Your task to perform on an android device: What's the latest tech news? Image 0: 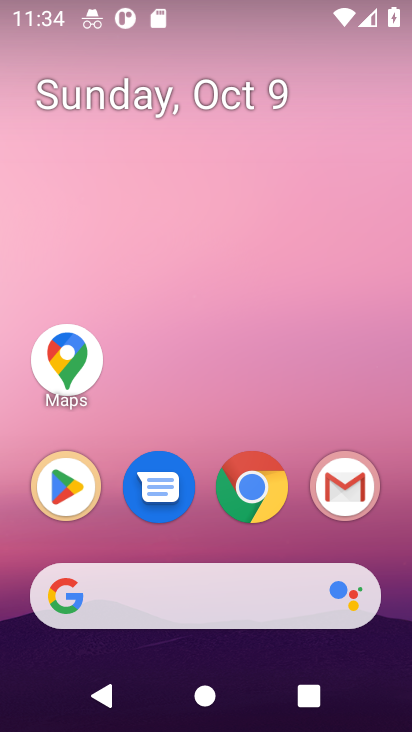
Step 0: click (257, 486)
Your task to perform on an android device: What's the latest tech news? Image 1: 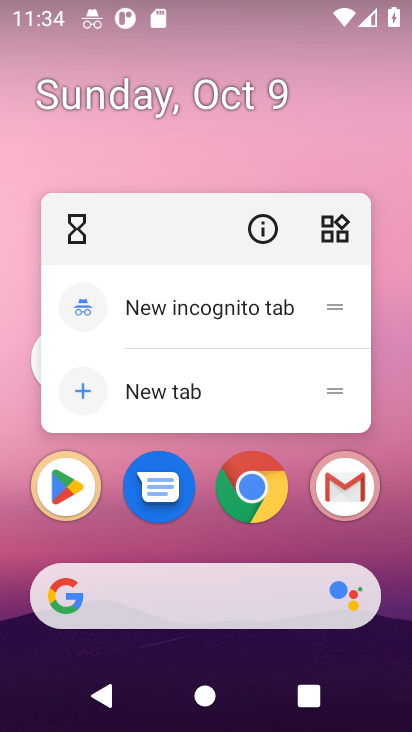
Step 1: click (254, 497)
Your task to perform on an android device: What's the latest tech news? Image 2: 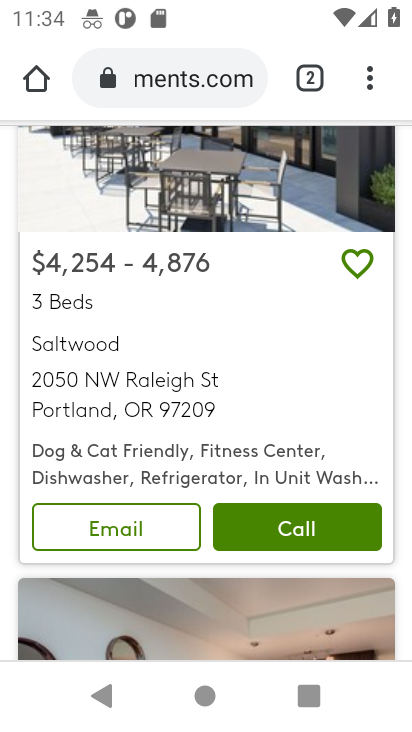
Step 2: click (227, 78)
Your task to perform on an android device: What's the latest tech news? Image 3: 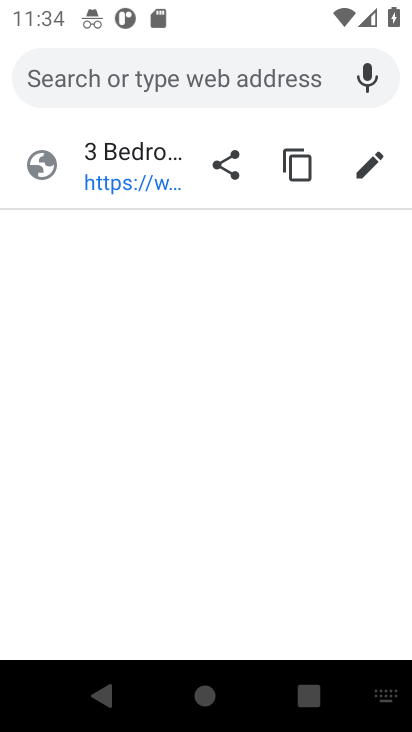
Step 3: type "latest tech news"
Your task to perform on an android device: What's the latest tech news? Image 4: 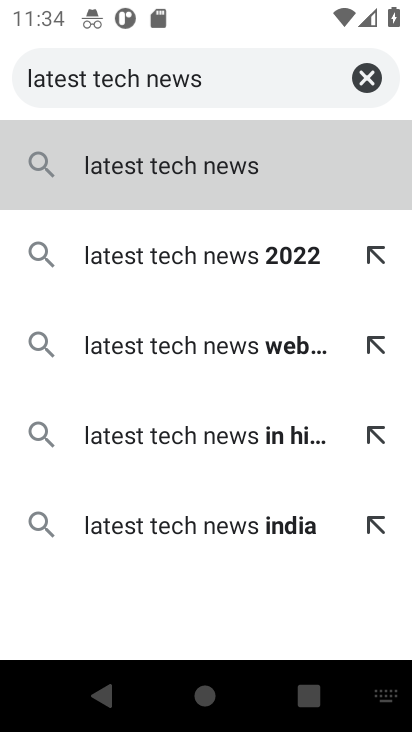
Step 4: type ""
Your task to perform on an android device: What's the latest tech news? Image 5: 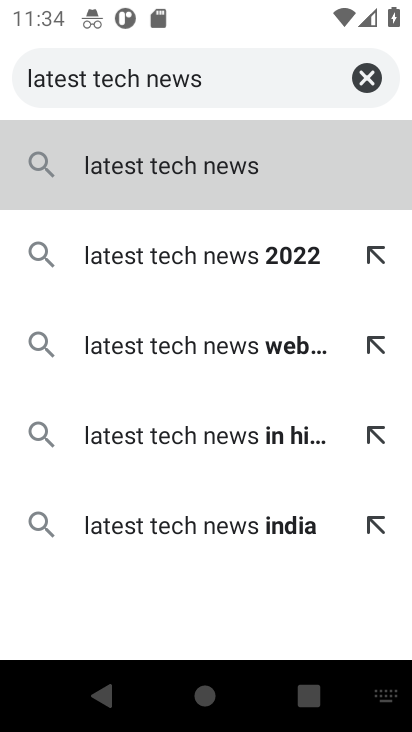
Step 5: press enter
Your task to perform on an android device: What's the latest tech news? Image 6: 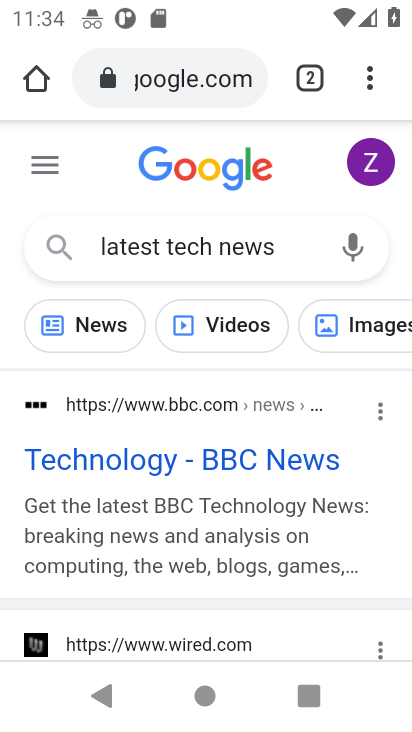
Step 6: drag from (213, 556) to (196, 499)
Your task to perform on an android device: What's the latest tech news? Image 7: 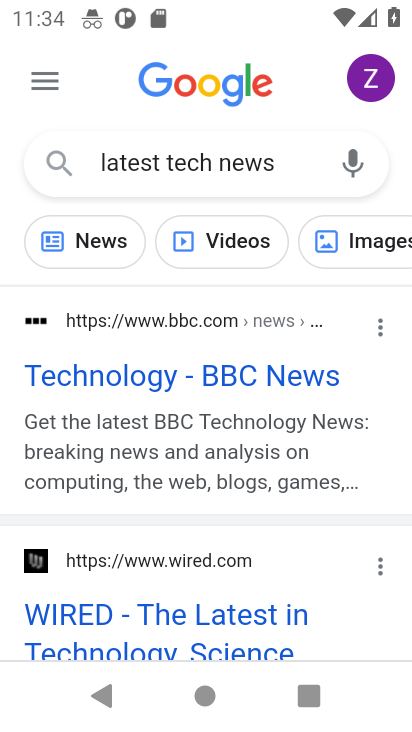
Step 7: click (91, 240)
Your task to perform on an android device: What's the latest tech news? Image 8: 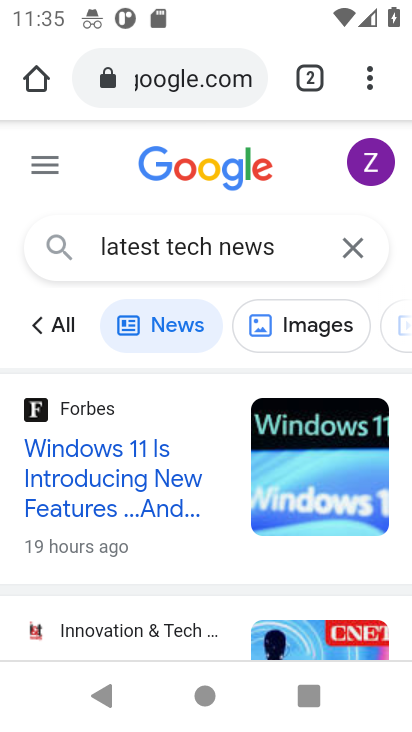
Step 8: task complete